Your task to perform on an android device: Show me the alarms in the clock app Image 0: 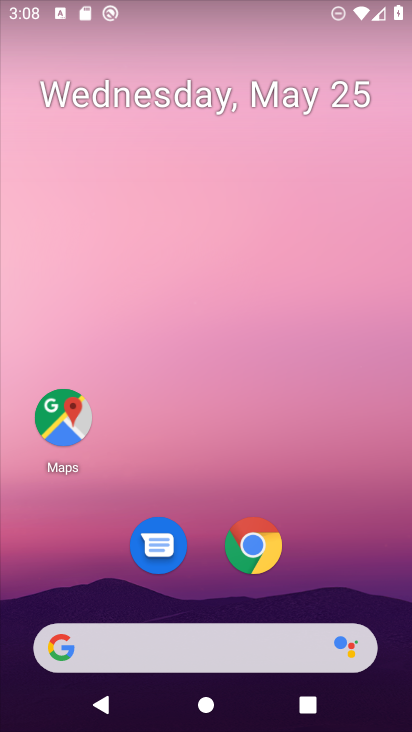
Step 0: drag from (354, 576) to (157, 13)
Your task to perform on an android device: Show me the alarms in the clock app Image 1: 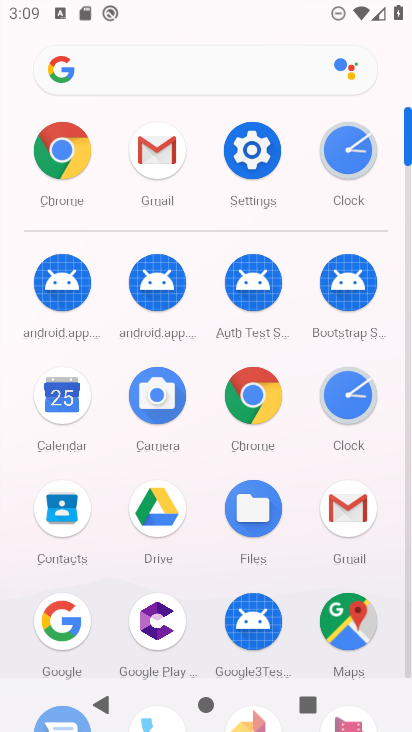
Step 1: click (365, 191)
Your task to perform on an android device: Show me the alarms in the clock app Image 2: 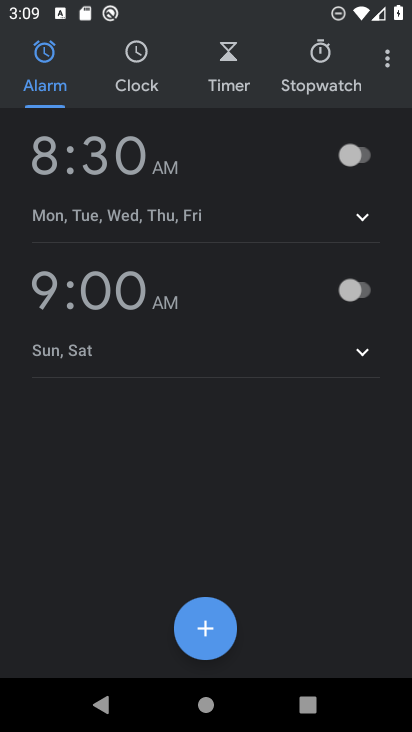
Step 2: task complete